Your task to perform on an android device: change timer sound Image 0: 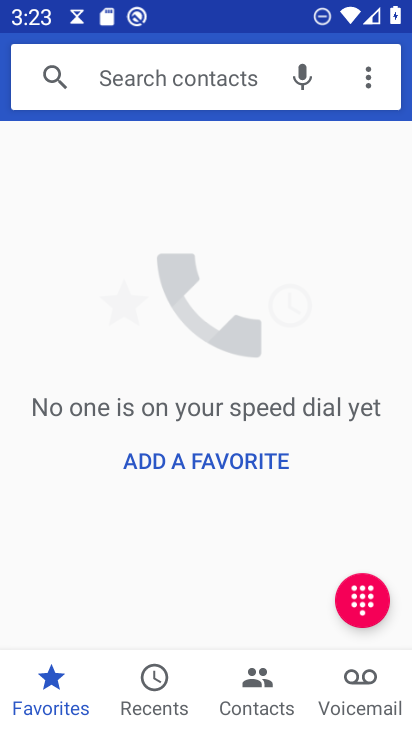
Step 0: press home button
Your task to perform on an android device: change timer sound Image 1: 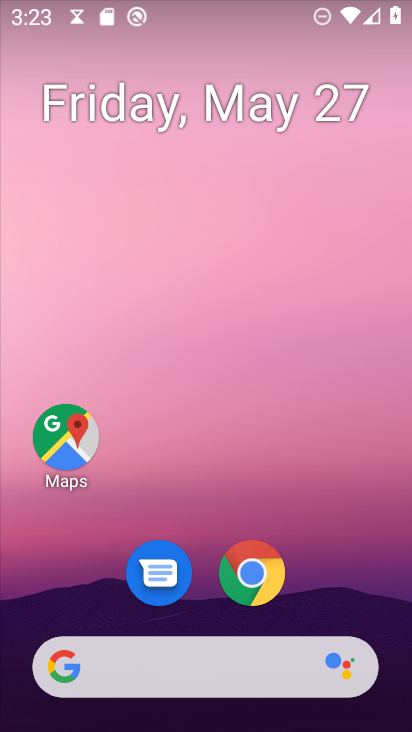
Step 1: drag from (313, 585) to (404, 466)
Your task to perform on an android device: change timer sound Image 2: 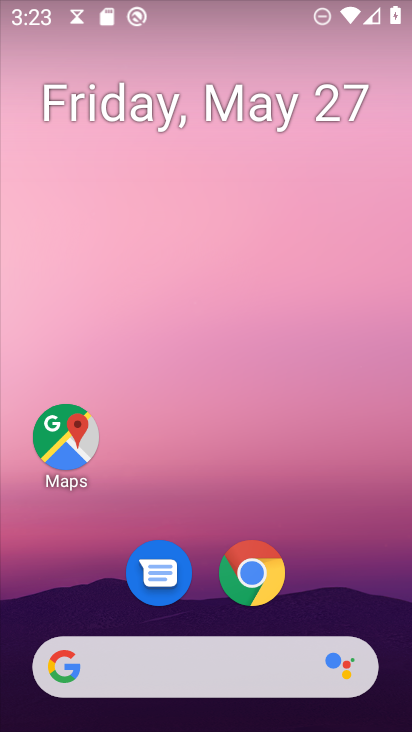
Step 2: drag from (321, 575) to (305, 0)
Your task to perform on an android device: change timer sound Image 3: 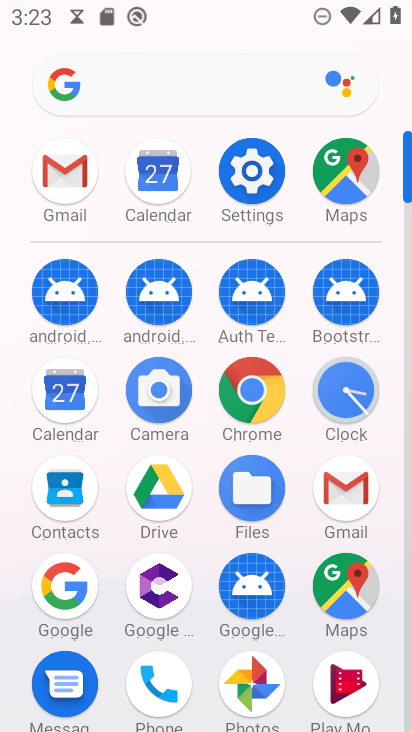
Step 3: click (339, 397)
Your task to perform on an android device: change timer sound Image 4: 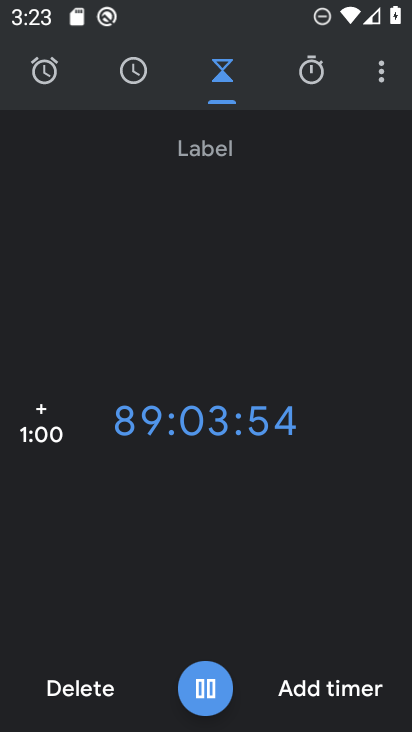
Step 4: click (378, 60)
Your task to perform on an android device: change timer sound Image 5: 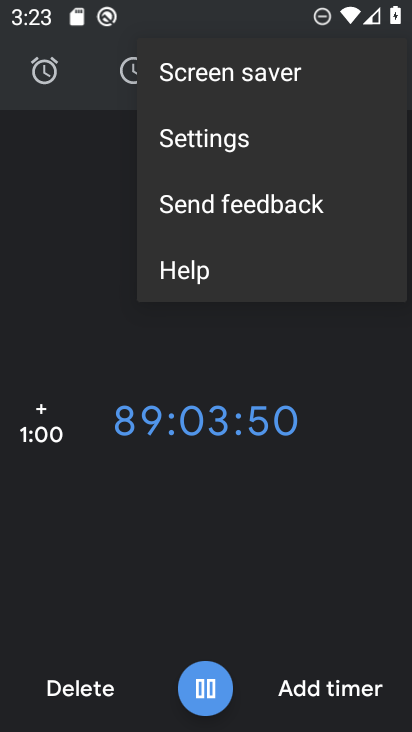
Step 5: click (197, 148)
Your task to perform on an android device: change timer sound Image 6: 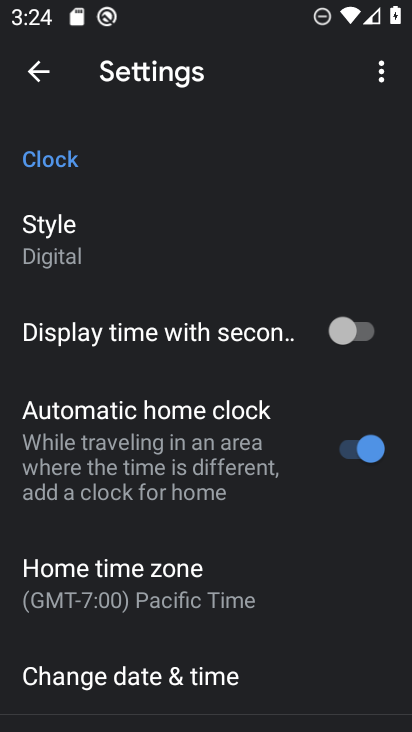
Step 6: drag from (119, 422) to (136, 150)
Your task to perform on an android device: change timer sound Image 7: 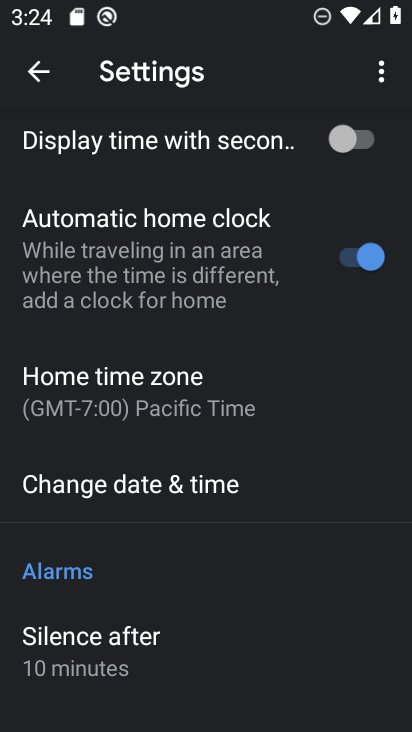
Step 7: drag from (99, 653) to (121, 146)
Your task to perform on an android device: change timer sound Image 8: 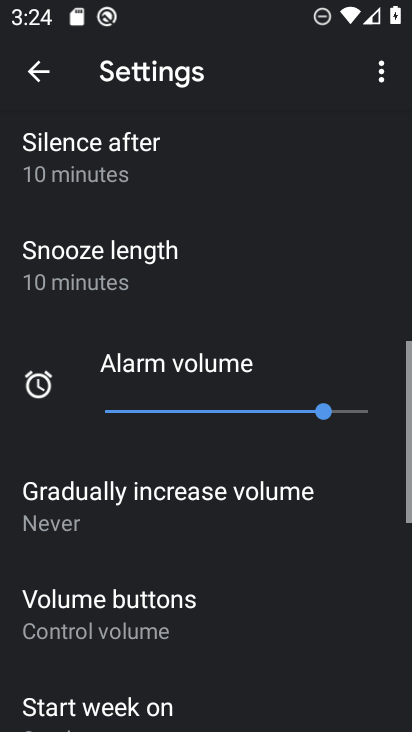
Step 8: drag from (125, 646) to (199, 230)
Your task to perform on an android device: change timer sound Image 9: 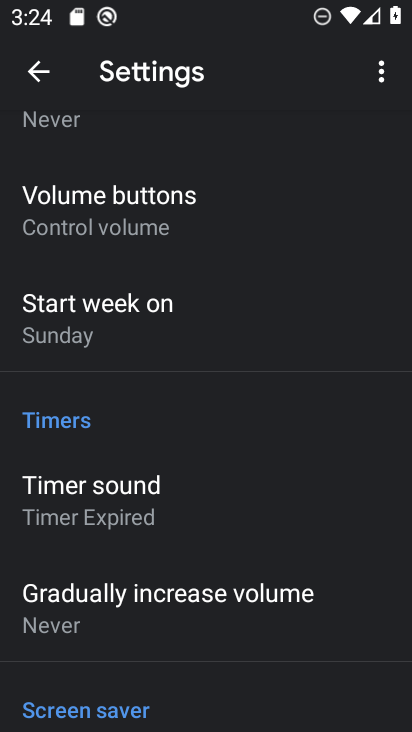
Step 9: click (127, 511)
Your task to perform on an android device: change timer sound Image 10: 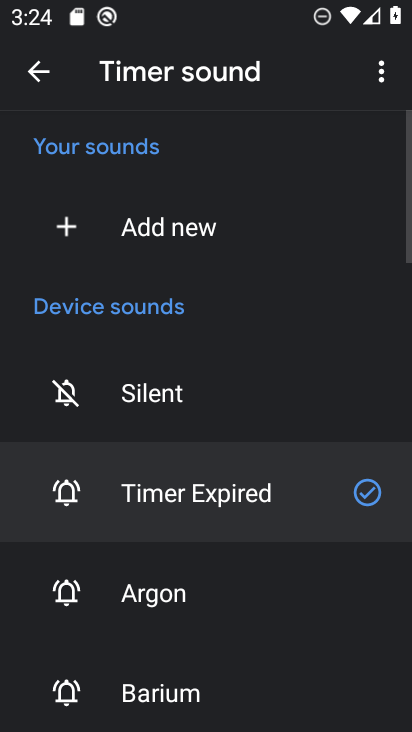
Step 10: click (164, 601)
Your task to perform on an android device: change timer sound Image 11: 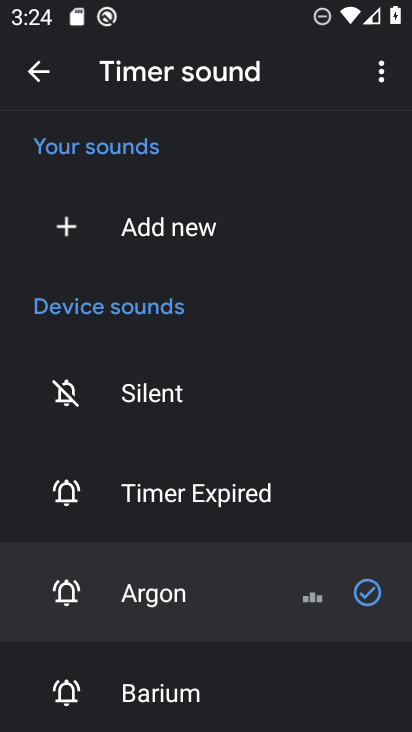
Step 11: task complete